Your task to perform on an android device: open sync settings in chrome Image 0: 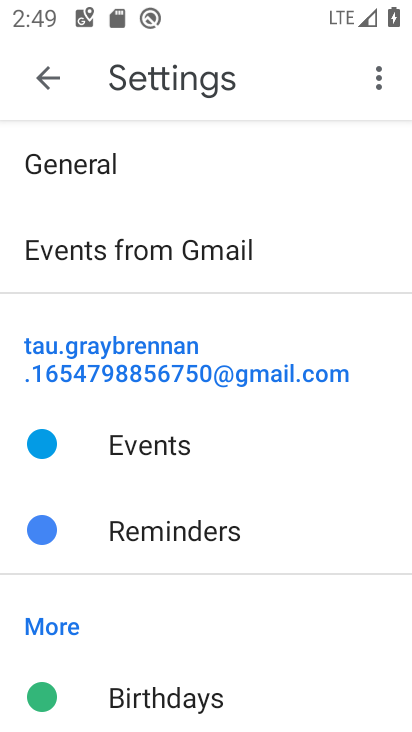
Step 0: press home button
Your task to perform on an android device: open sync settings in chrome Image 1: 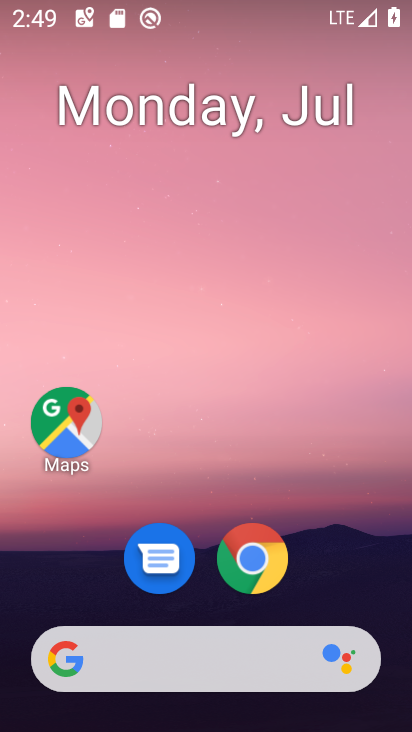
Step 1: drag from (375, 575) to (350, 133)
Your task to perform on an android device: open sync settings in chrome Image 2: 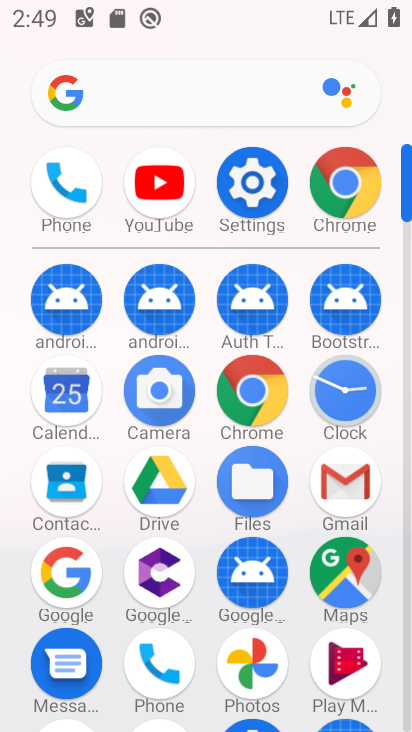
Step 2: click (239, 408)
Your task to perform on an android device: open sync settings in chrome Image 3: 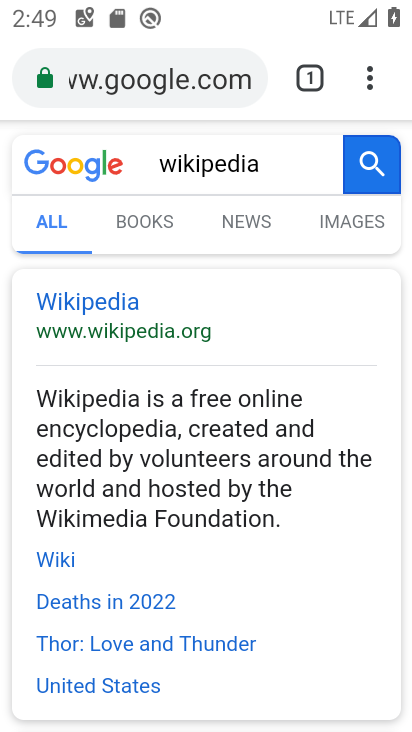
Step 3: click (372, 85)
Your task to perform on an android device: open sync settings in chrome Image 4: 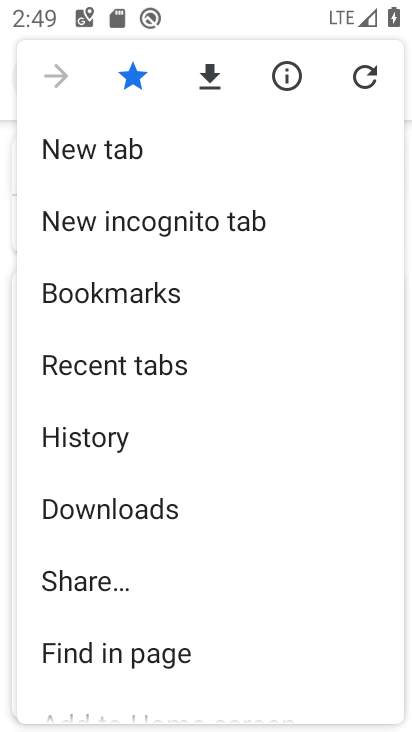
Step 4: drag from (347, 407) to (338, 293)
Your task to perform on an android device: open sync settings in chrome Image 5: 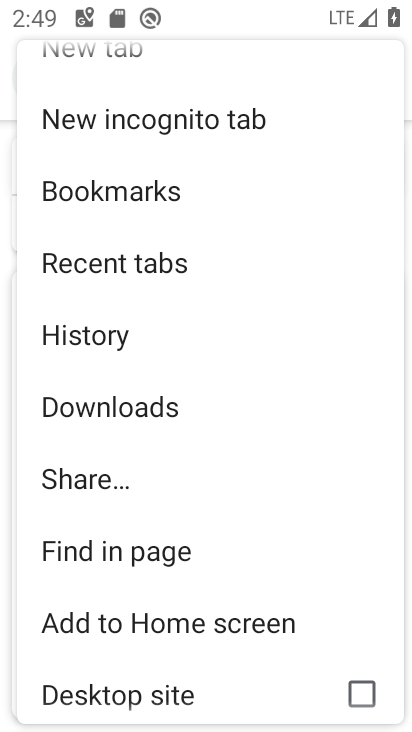
Step 5: drag from (296, 464) to (300, 327)
Your task to perform on an android device: open sync settings in chrome Image 6: 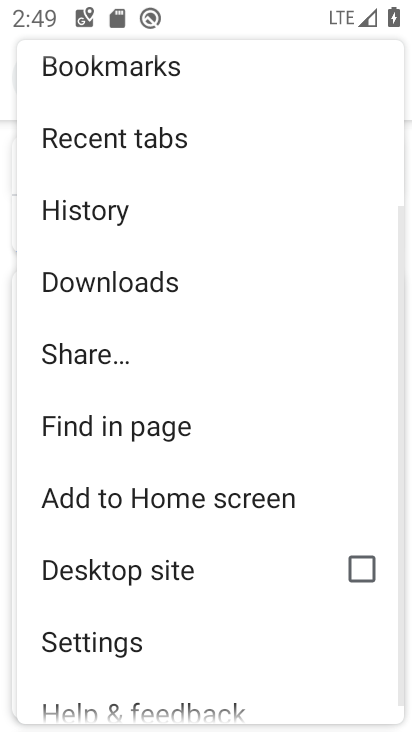
Step 6: drag from (295, 467) to (278, 335)
Your task to perform on an android device: open sync settings in chrome Image 7: 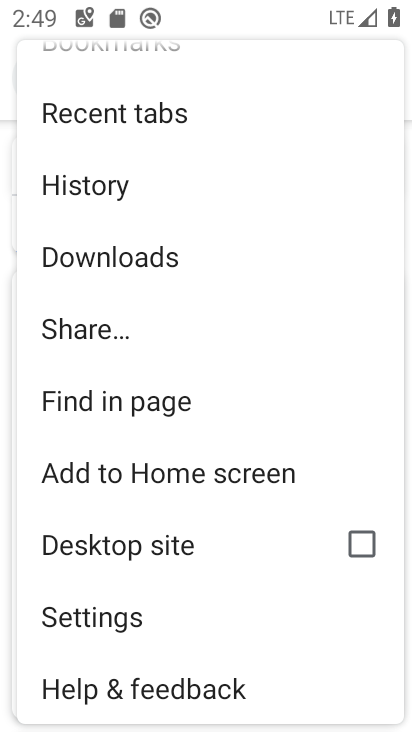
Step 7: click (205, 622)
Your task to perform on an android device: open sync settings in chrome Image 8: 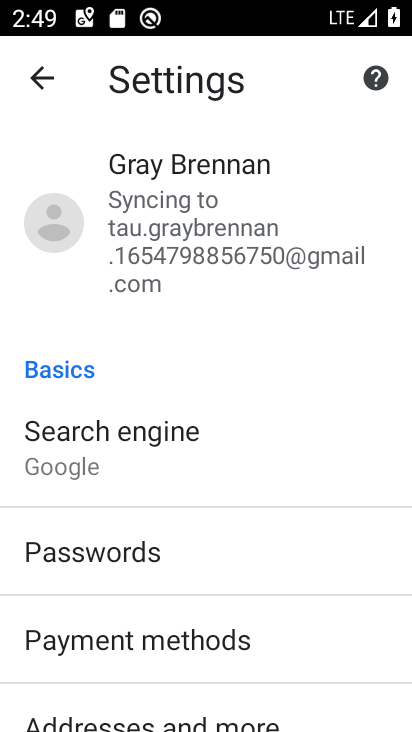
Step 8: drag from (326, 613) to (334, 499)
Your task to perform on an android device: open sync settings in chrome Image 9: 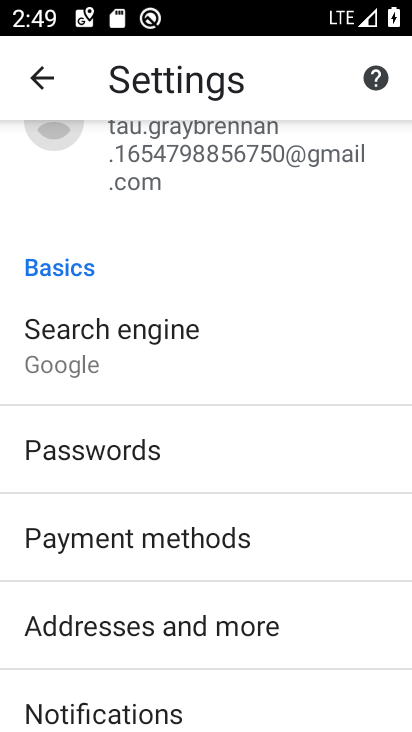
Step 9: drag from (329, 606) to (333, 488)
Your task to perform on an android device: open sync settings in chrome Image 10: 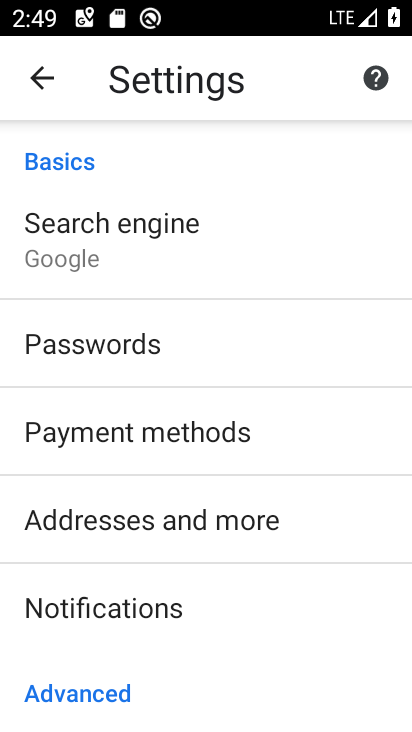
Step 10: drag from (335, 552) to (335, 439)
Your task to perform on an android device: open sync settings in chrome Image 11: 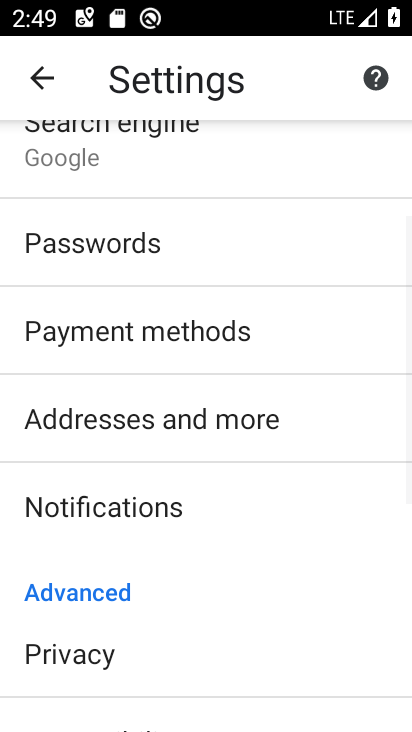
Step 11: drag from (329, 602) to (327, 491)
Your task to perform on an android device: open sync settings in chrome Image 12: 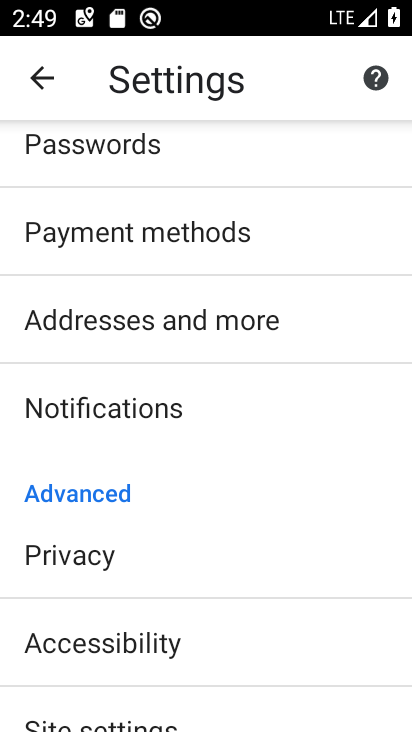
Step 12: drag from (311, 617) to (315, 515)
Your task to perform on an android device: open sync settings in chrome Image 13: 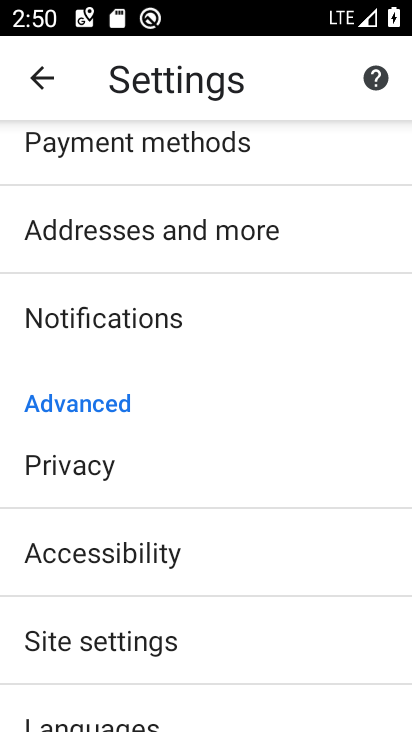
Step 13: drag from (306, 632) to (304, 520)
Your task to perform on an android device: open sync settings in chrome Image 14: 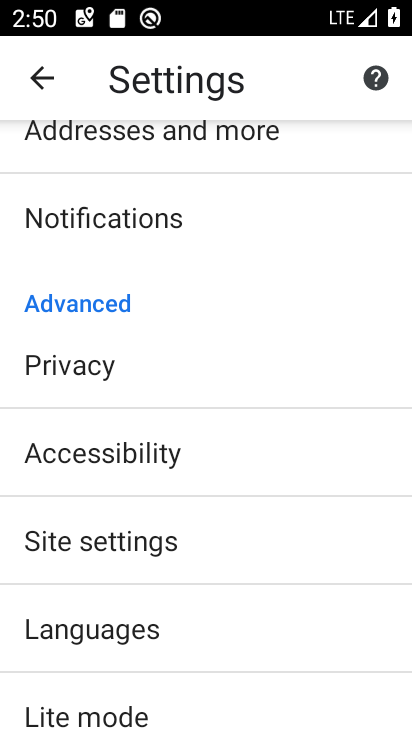
Step 14: drag from (296, 638) to (296, 570)
Your task to perform on an android device: open sync settings in chrome Image 15: 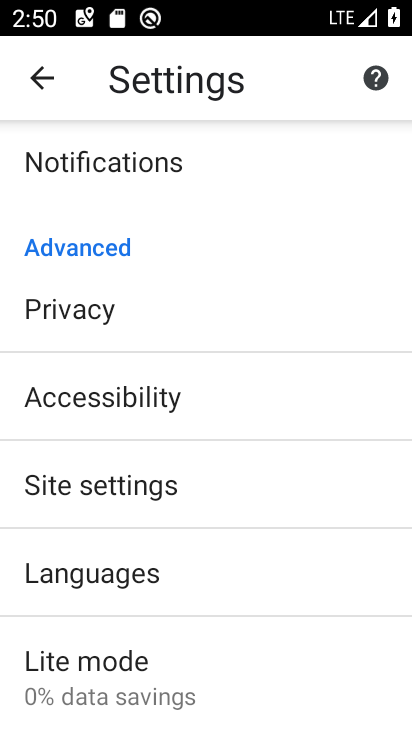
Step 15: click (294, 500)
Your task to perform on an android device: open sync settings in chrome Image 16: 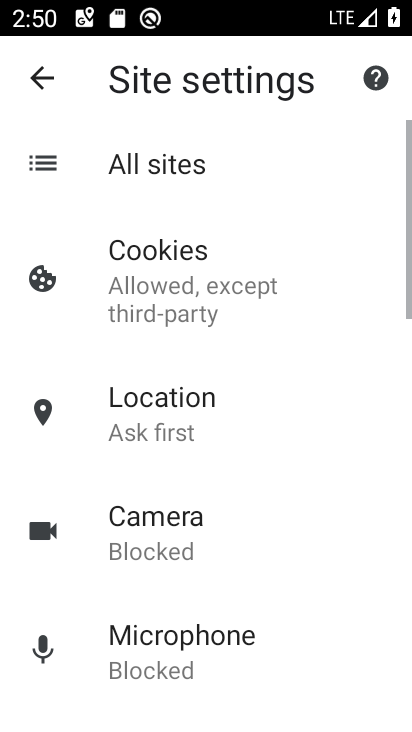
Step 16: drag from (298, 548) to (298, 481)
Your task to perform on an android device: open sync settings in chrome Image 17: 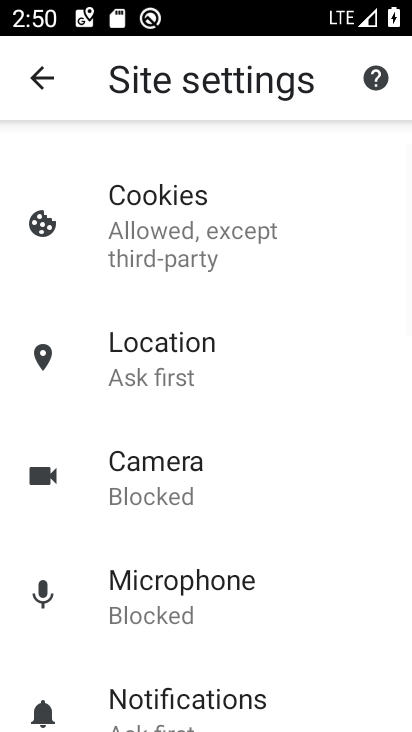
Step 17: drag from (306, 552) to (304, 442)
Your task to perform on an android device: open sync settings in chrome Image 18: 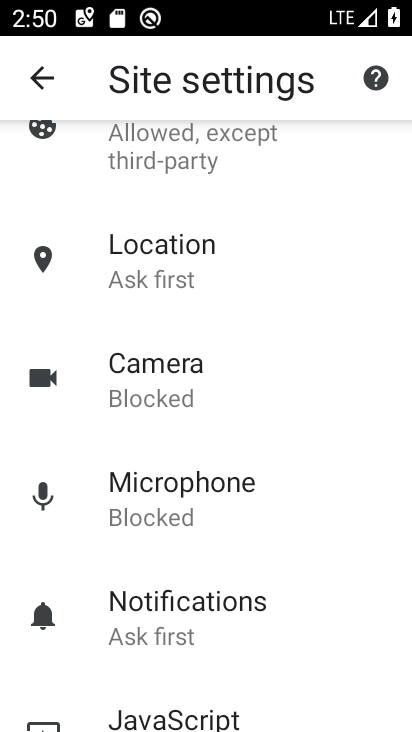
Step 18: drag from (325, 591) to (312, 502)
Your task to perform on an android device: open sync settings in chrome Image 19: 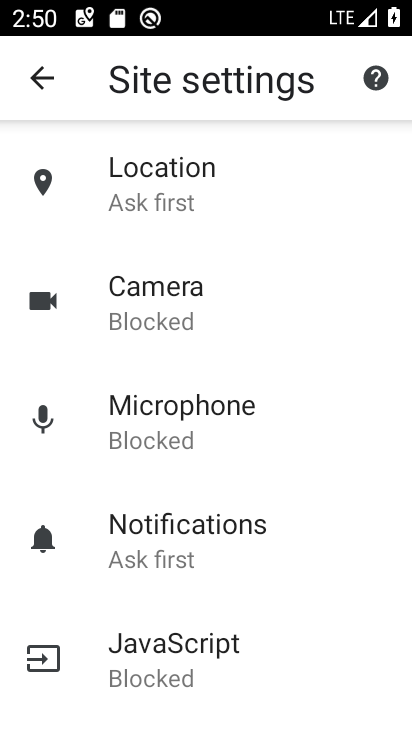
Step 19: drag from (302, 567) to (300, 501)
Your task to perform on an android device: open sync settings in chrome Image 20: 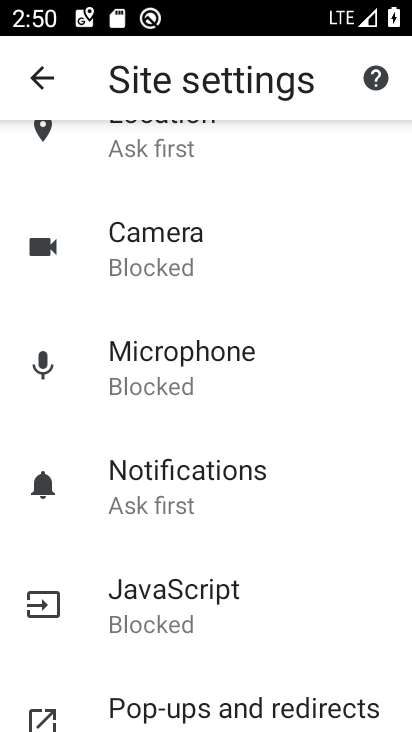
Step 20: drag from (294, 589) to (288, 468)
Your task to perform on an android device: open sync settings in chrome Image 21: 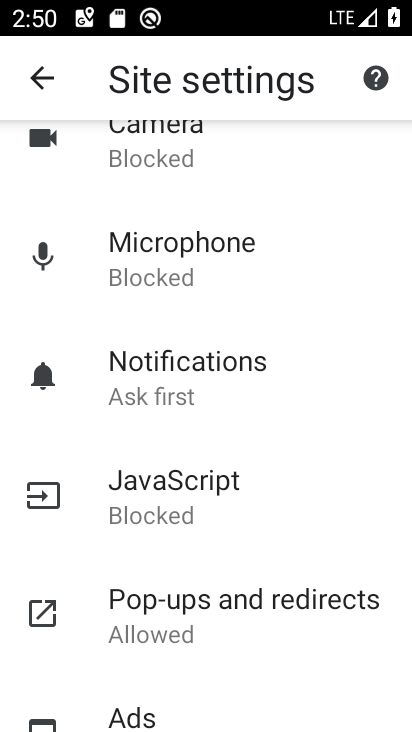
Step 21: drag from (283, 633) to (283, 473)
Your task to perform on an android device: open sync settings in chrome Image 22: 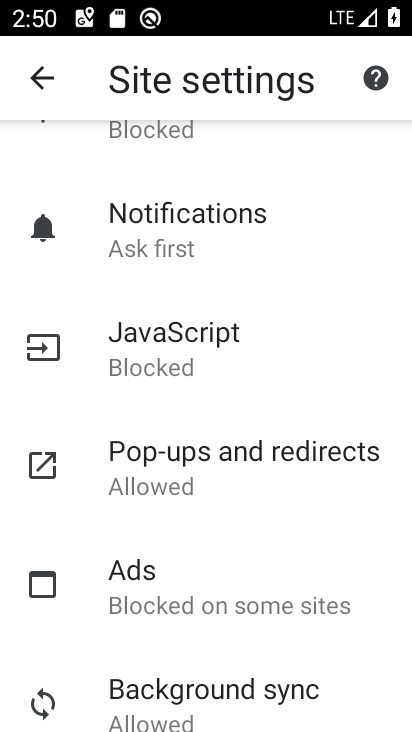
Step 22: click (303, 684)
Your task to perform on an android device: open sync settings in chrome Image 23: 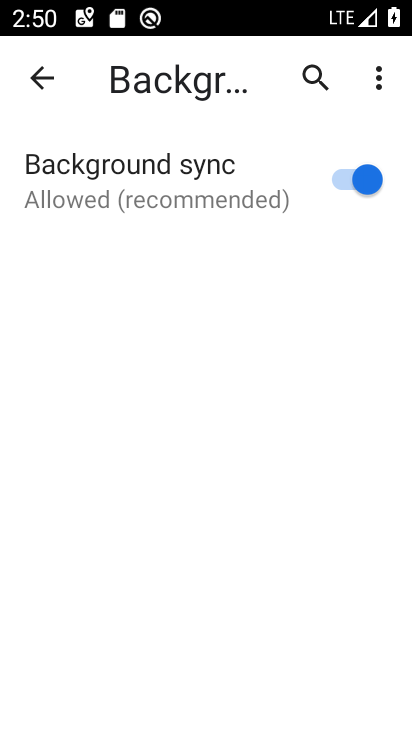
Step 23: task complete